Your task to perform on an android device: Open wifi settings Image 0: 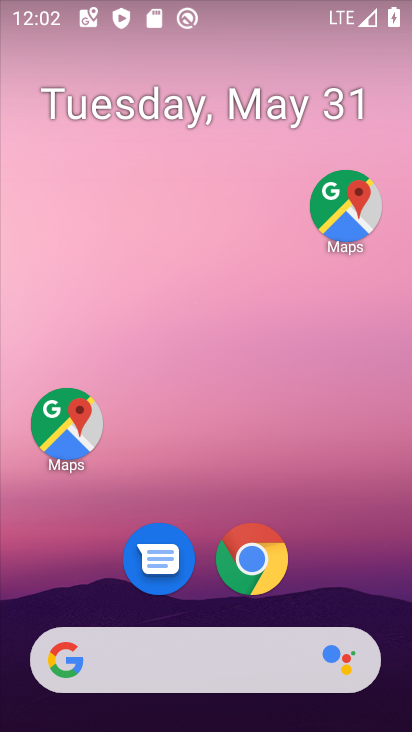
Step 0: drag from (295, 458) to (213, 68)
Your task to perform on an android device: Open wifi settings Image 1: 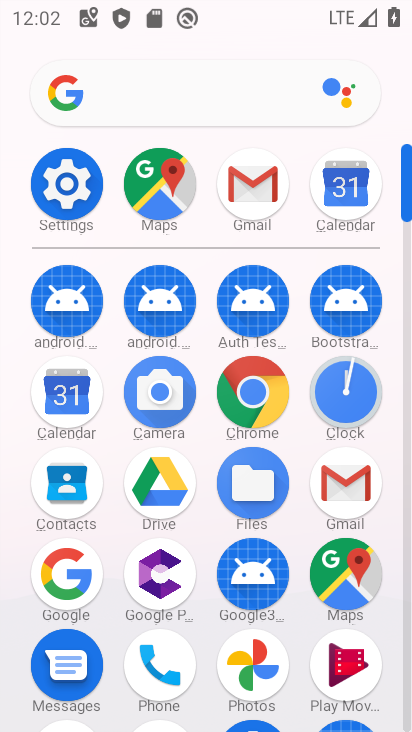
Step 1: click (81, 178)
Your task to perform on an android device: Open wifi settings Image 2: 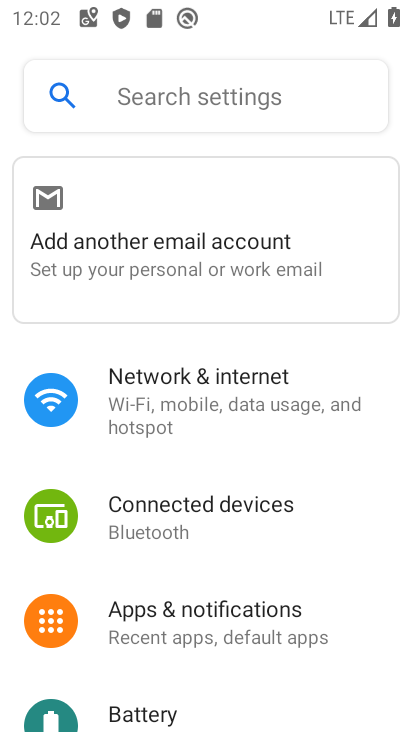
Step 2: click (168, 403)
Your task to perform on an android device: Open wifi settings Image 3: 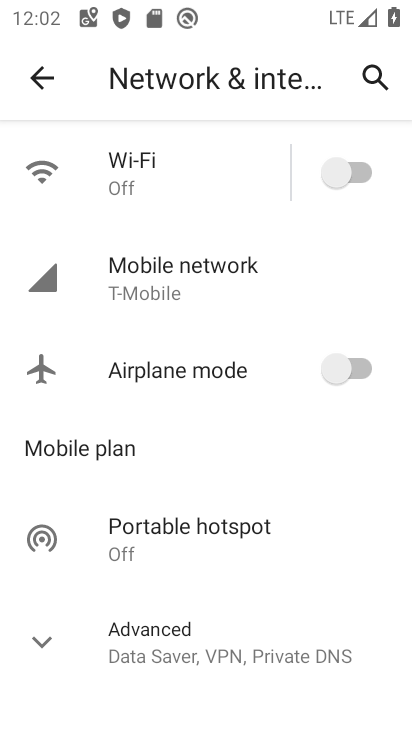
Step 3: click (230, 175)
Your task to perform on an android device: Open wifi settings Image 4: 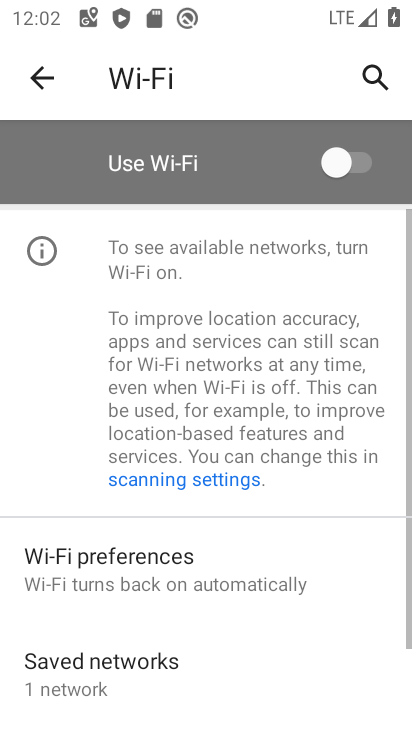
Step 4: click (359, 165)
Your task to perform on an android device: Open wifi settings Image 5: 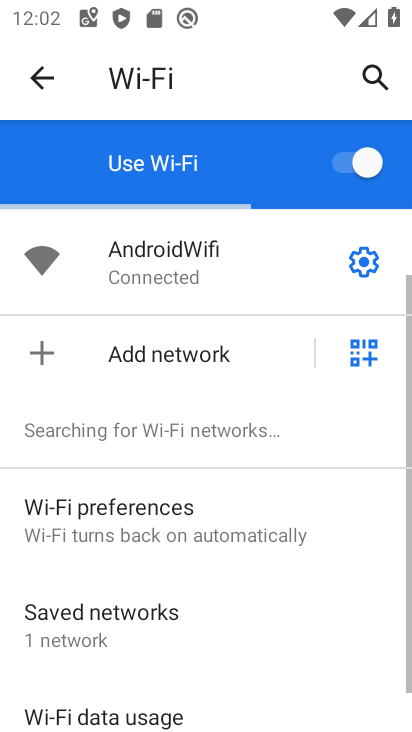
Step 5: click (361, 267)
Your task to perform on an android device: Open wifi settings Image 6: 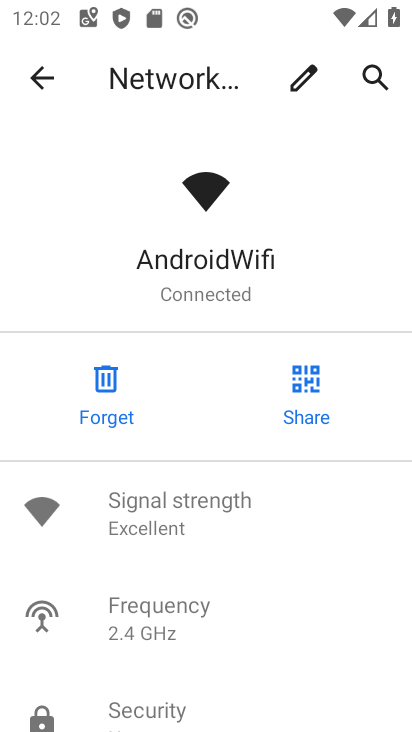
Step 6: task complete